Your task to perform on an android device: toggle wifi Image 0: 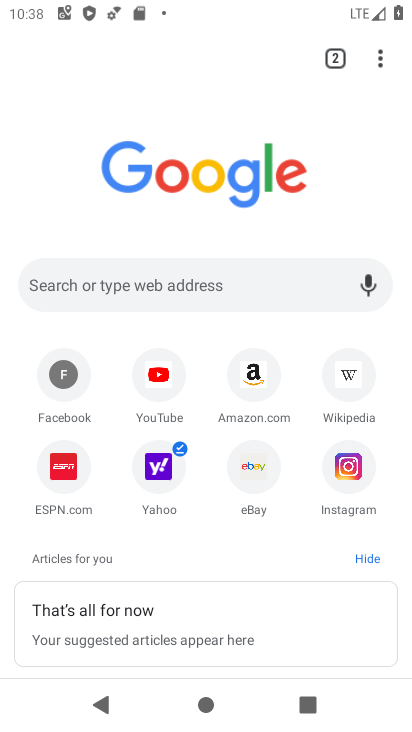
Step 0: press home button
Your task to perform on an android device: toggle wifi Image 1: 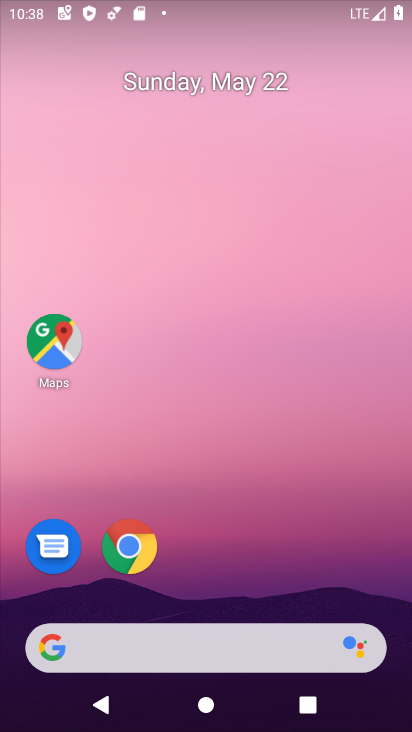
Step 1: drag from (188, 608) to (259, 200)
Your task to perform on an android device: toggle wifi Image 2: 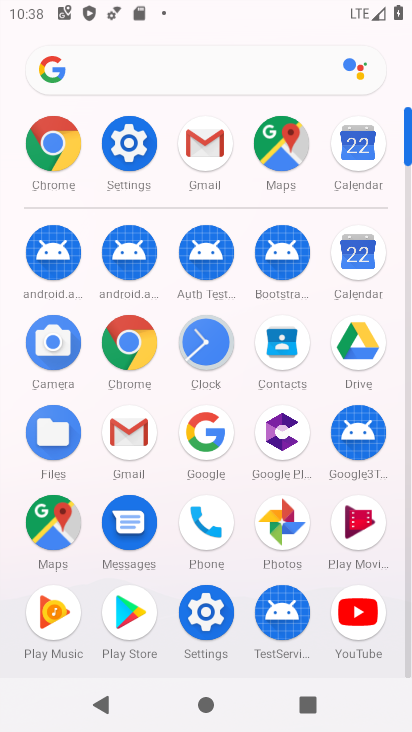
Step 2: click (126, 146)
Your task to perform on an android device: toggle wifi Image 3: 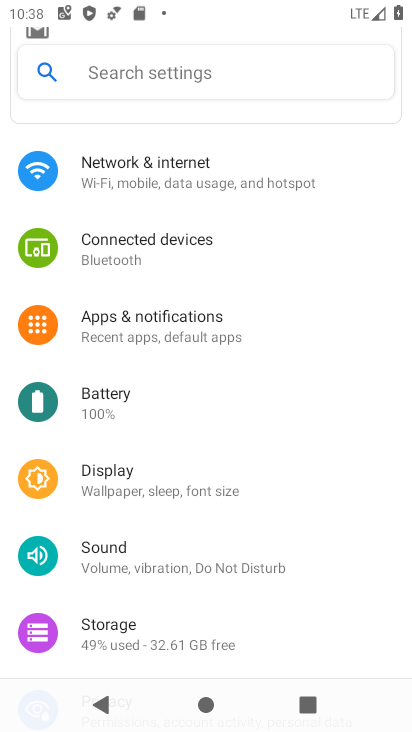
Step 3: drag from (211, 202) to (198, 661)
Your task to perform on an android device: toggle wifi Image 4: 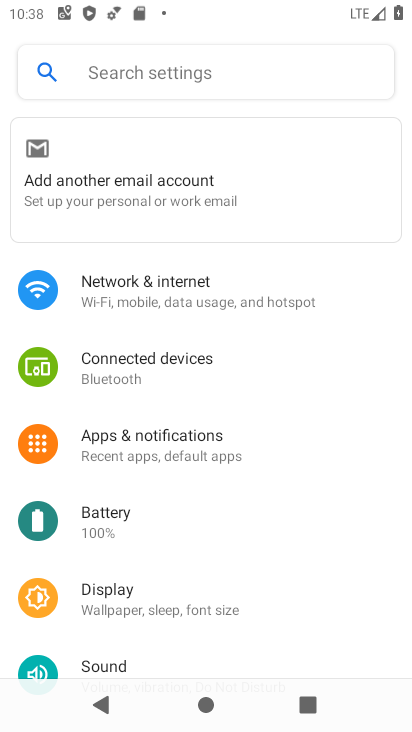
Step 4: click (185, 303)
Your task to perform on an android device: toggle wifi Image 5: 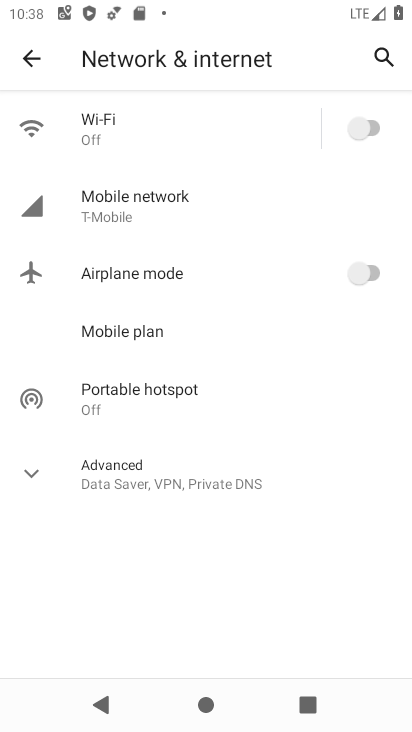
Step 5: click (367, 123)
Your task to perform on an android device: toggle wifi Image 6: 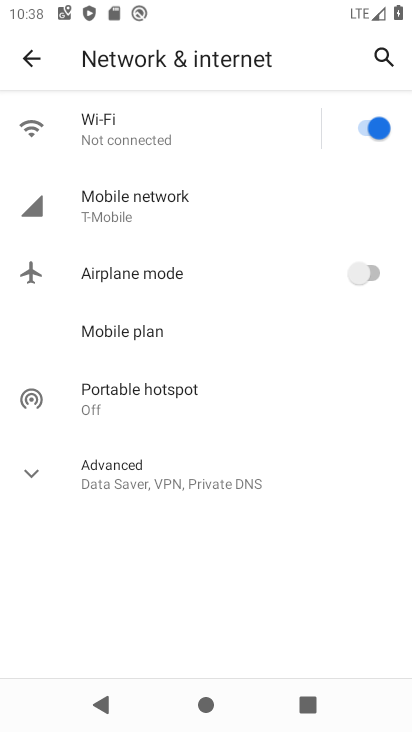
Step 6: task complete